Your task to perform on an android device: Go to settings Image 0: 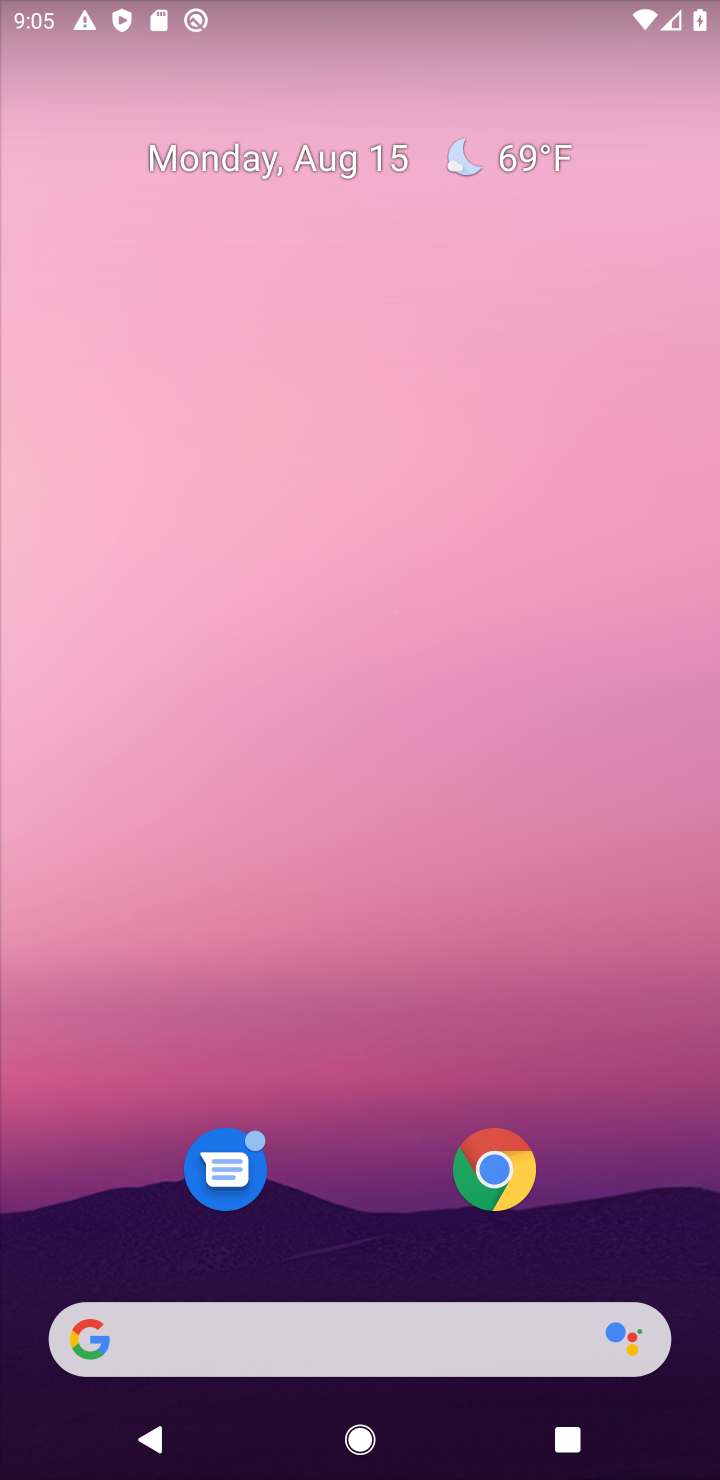
Step 0: drag from (455, 1210) to (692, 85)
Your task to perform on an android device: Go to settings Image 1: 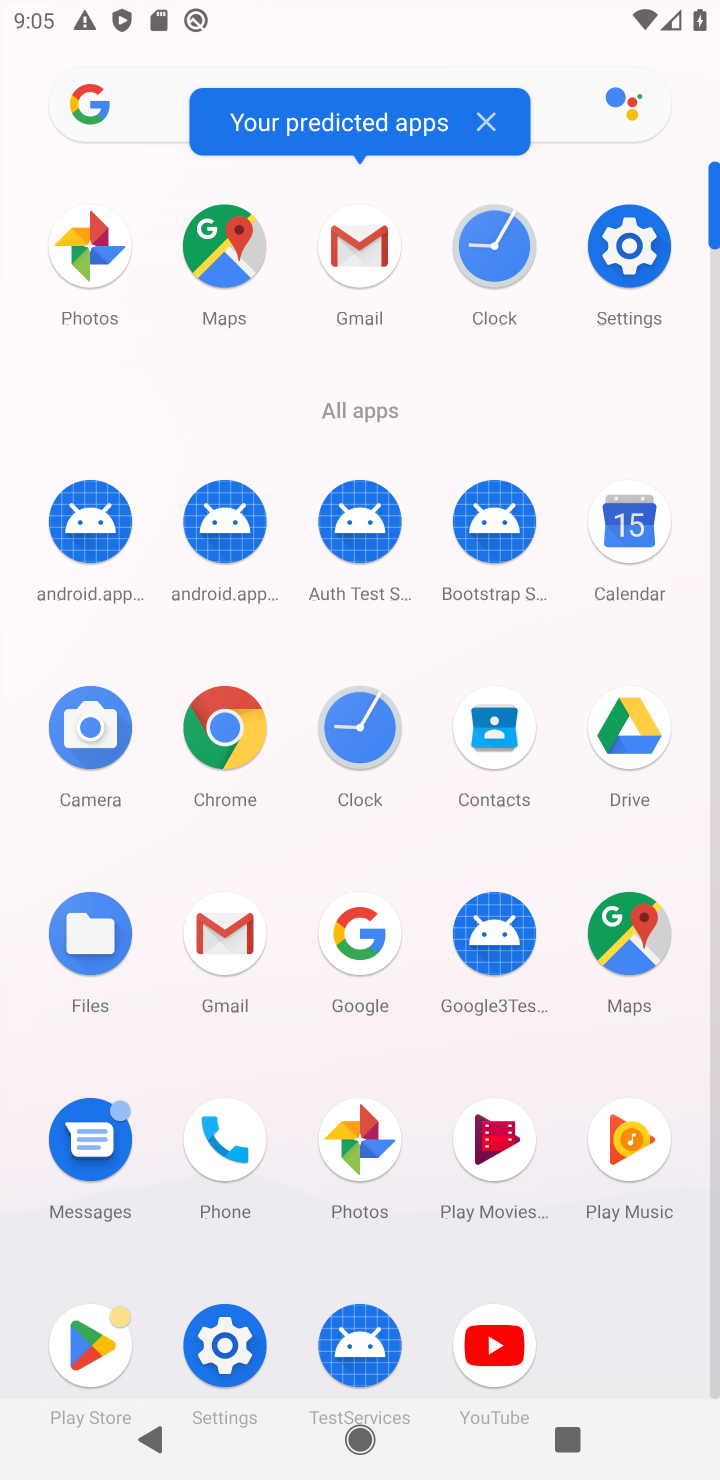
Step 1: click (628, 247)
Your task to perform on an android device: Go to settings Image 2: 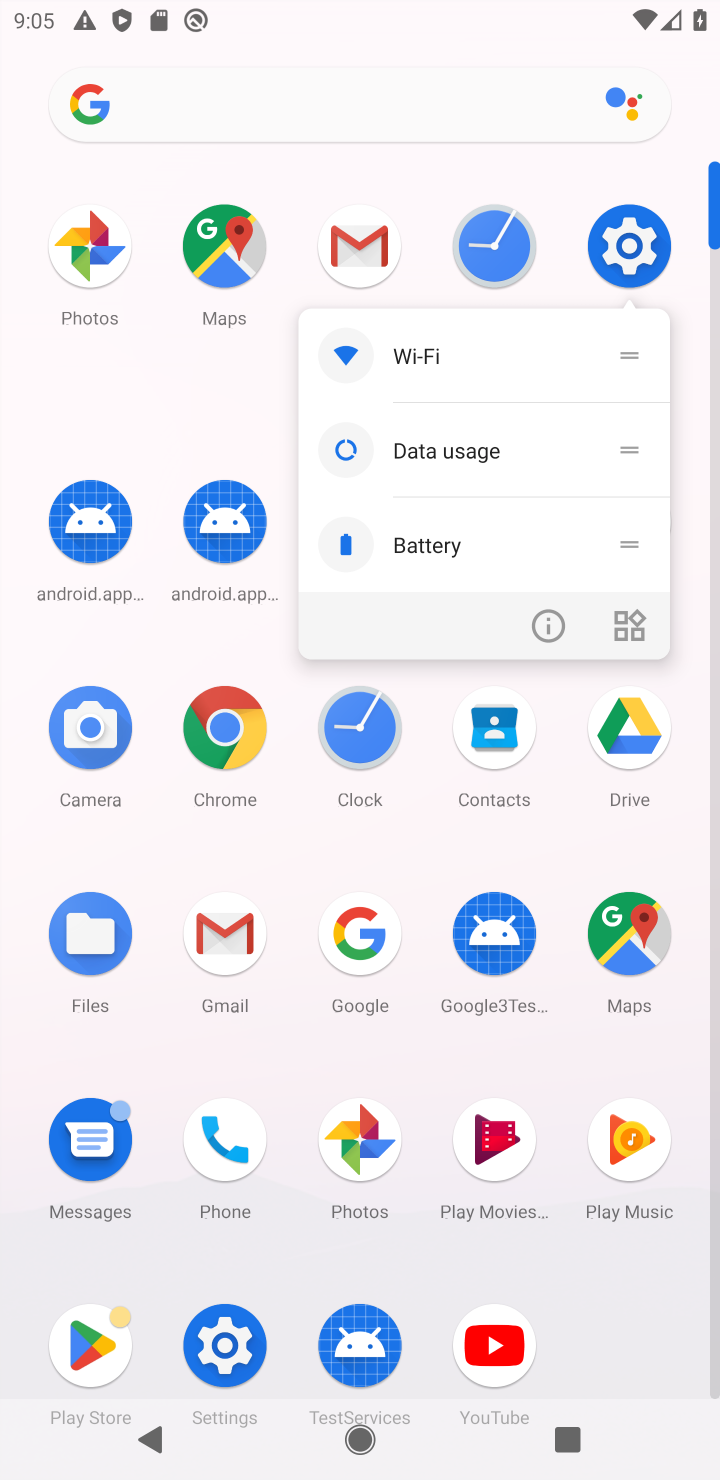
Step 2: click (628, 244)
Your task to perform on an android device: Go to settings Image 3: 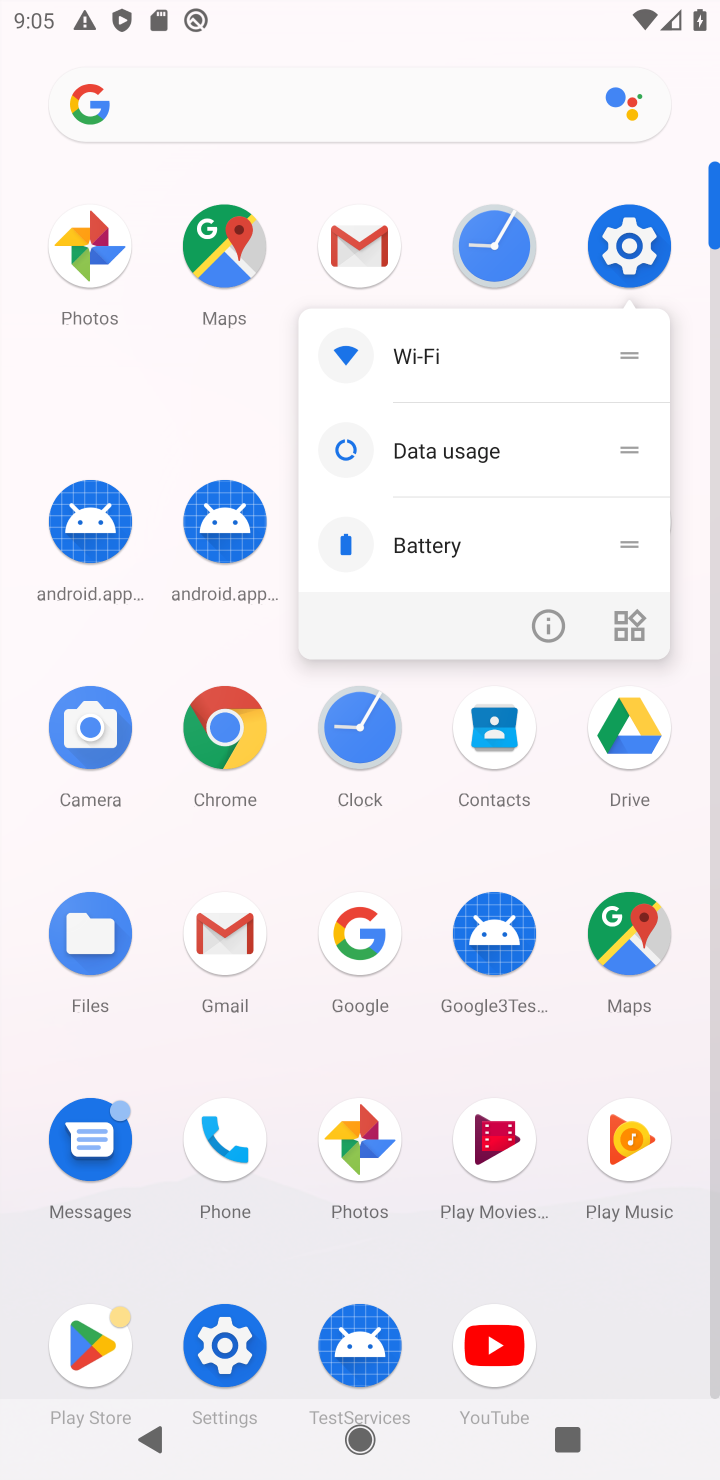
Step 3: click (628, 244)
Your task to perform on an android device: Go to settings Image 4: 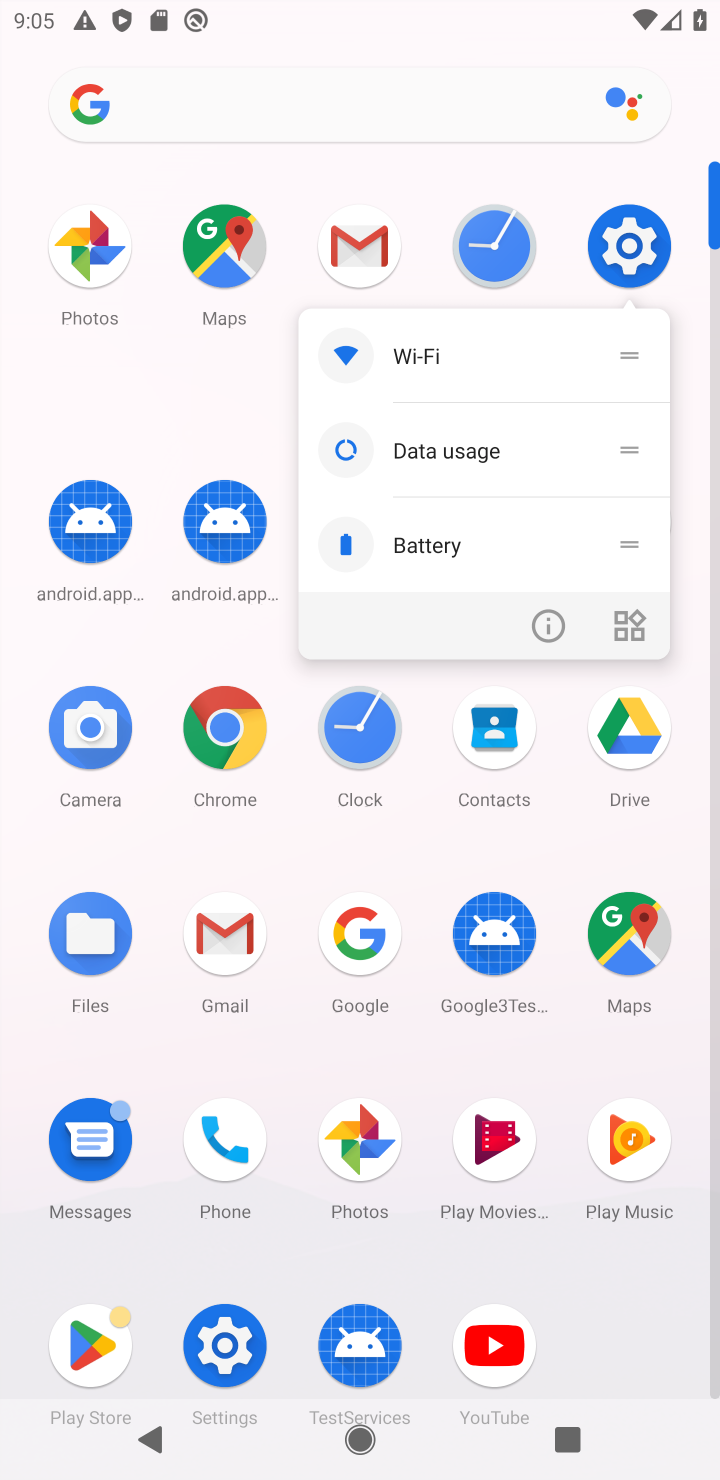
Step 4: click (628, 235)
Your task to perform on an android device: Go to settings Image 5: 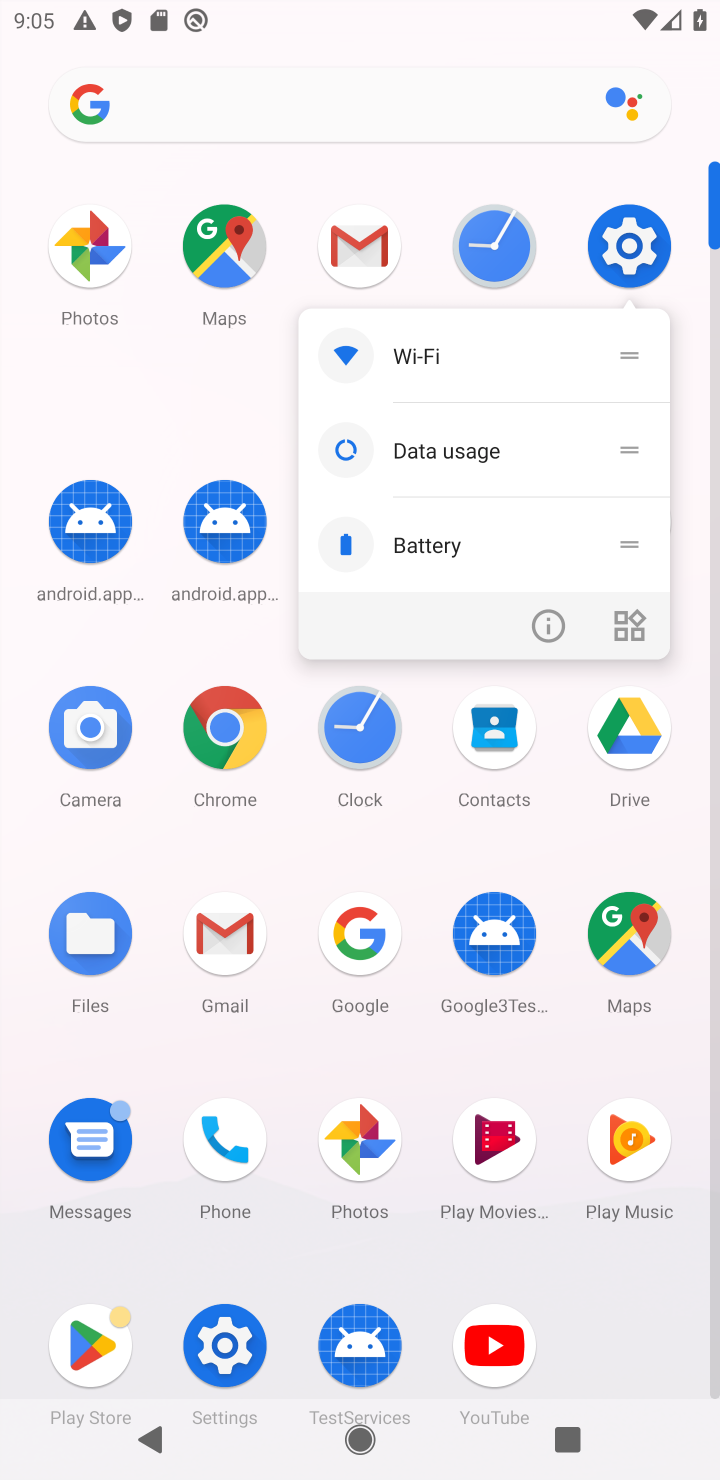
Step 5: click (628, 235)
Your task to perform on an android device: Go to settings Image 6: 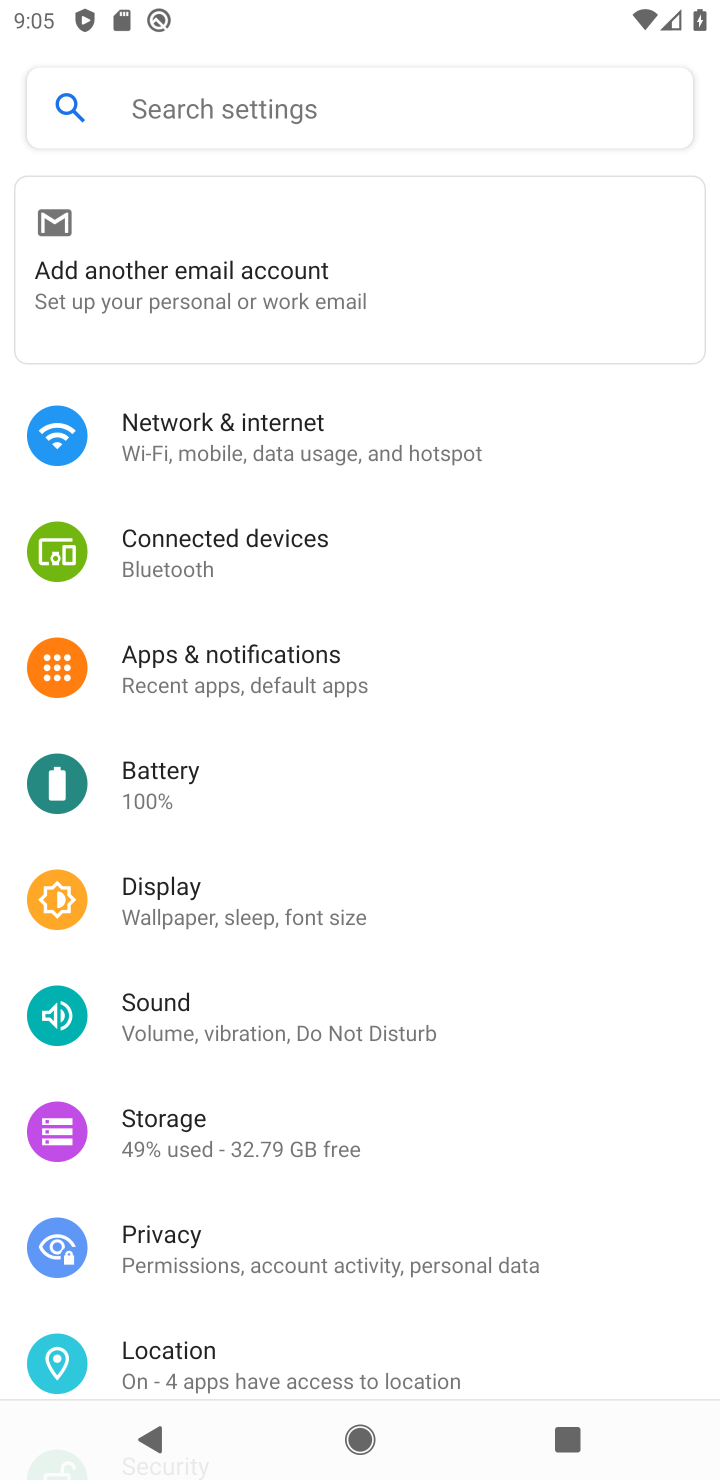
Step 6: task complete